Your task to perform on an android device: Open the Play Movies app and select the watchlist tab. Image 0: 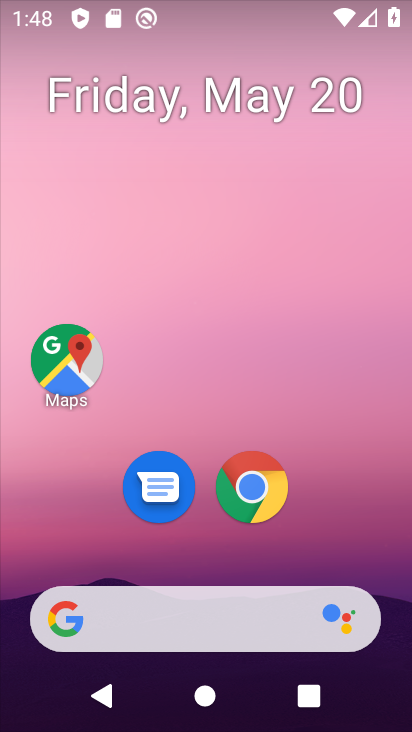
Step 0: drag from (381, 356) to (404, 7)
Your task to perform on an android device: Open the Play Movies app and select the watchlist tab. Image 1: 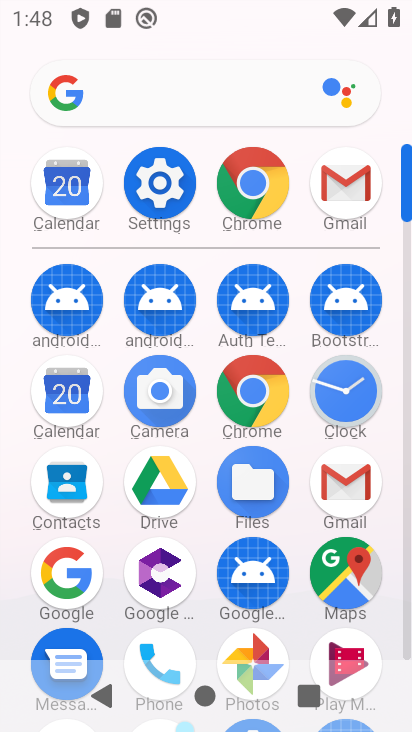
Step 1: drag from (379, 567) to (411, 231)
Your task to perform on an android device: Open the Play Movies app and select the watchlist tab. Image 2: 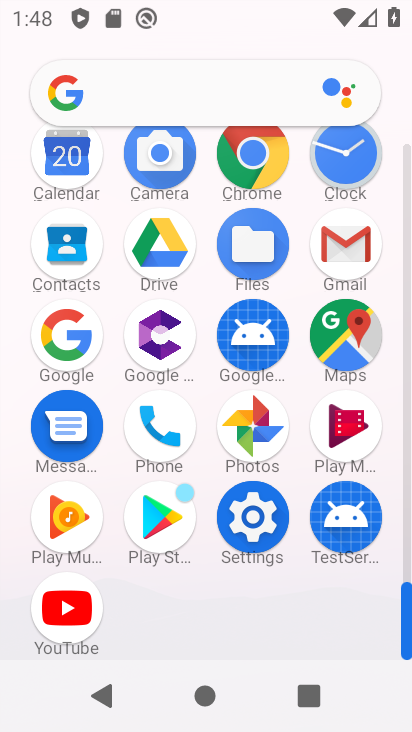
Step 2: click (160, 437)
Your task to perform on an android device: Open the Play Movies app and select the watchlist tab. Image 3: 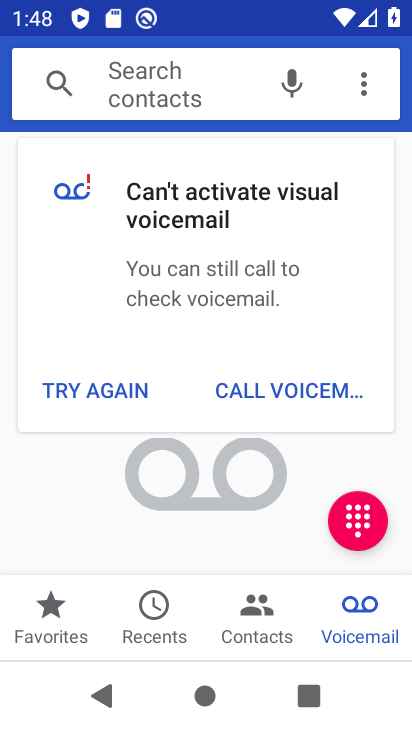
Step 3: task complete